Your task to perform on an android device: Open the phone app and click the voicemail tab. Image 0: 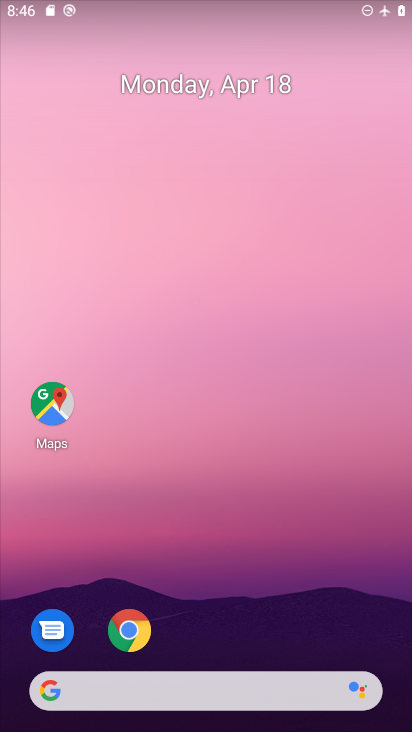
Step 0: drag from (260, 638) to (320, 239)
Your task to perform on an android device: Open the phone app and click the voicemail tab. Image 1: 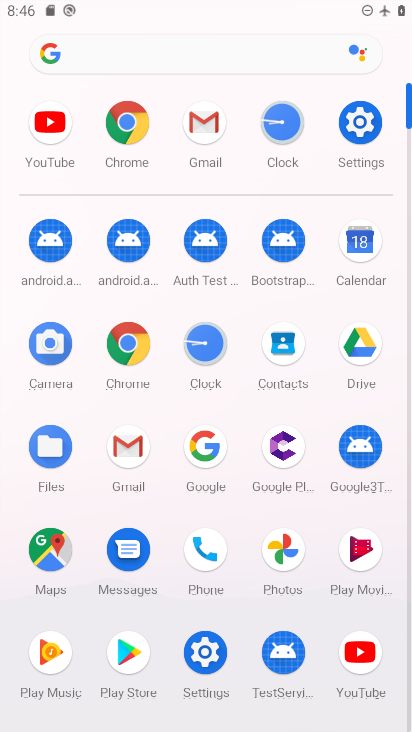
Step 1: click (207, 538)
Your task to perform on an android device: Open the phone app and click the voicemail tab. Image 2: 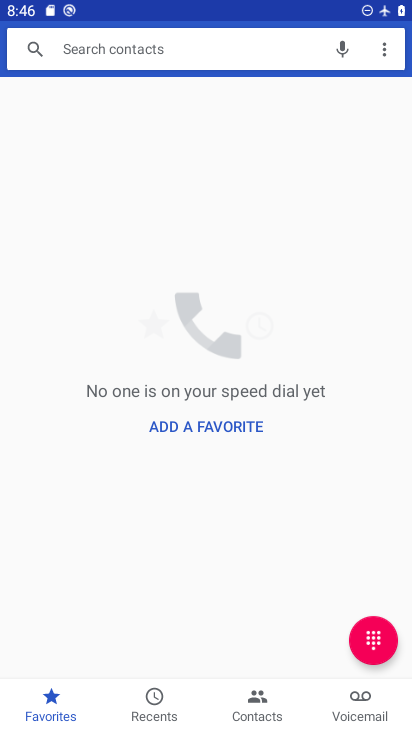
Step 2: click (349, 692)
Your task to perform on an android device: Open the phone app and click the voicemail tab. Image 3: 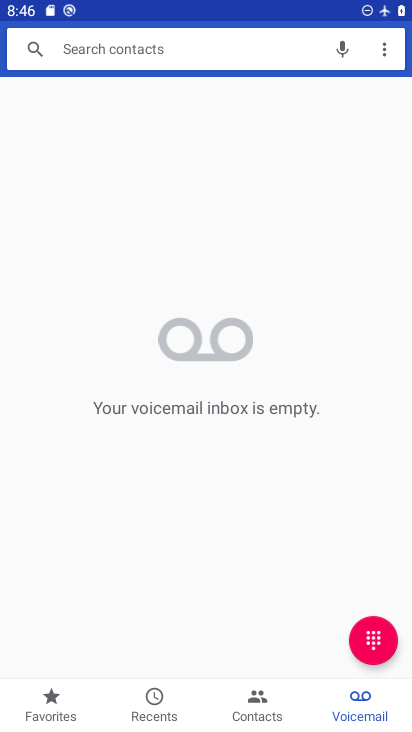
Step 3: task complete